Your task to perform on an android device: open chrome and create a bookmark for the current page Image 0: 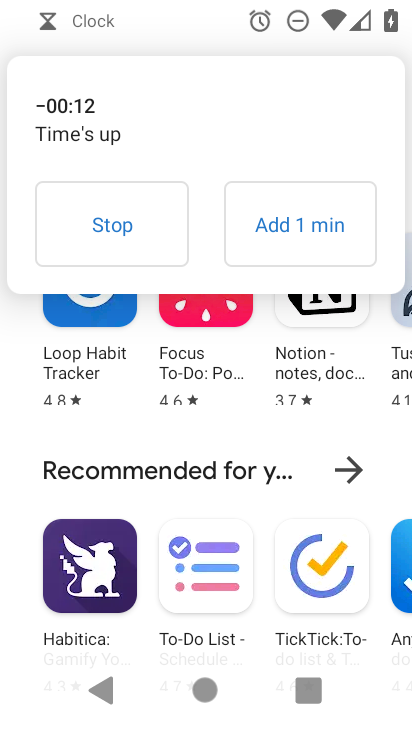
Step 0: press home button
Your task to perform on an android device: open chrome and create a bookmark for the current page Image 1: 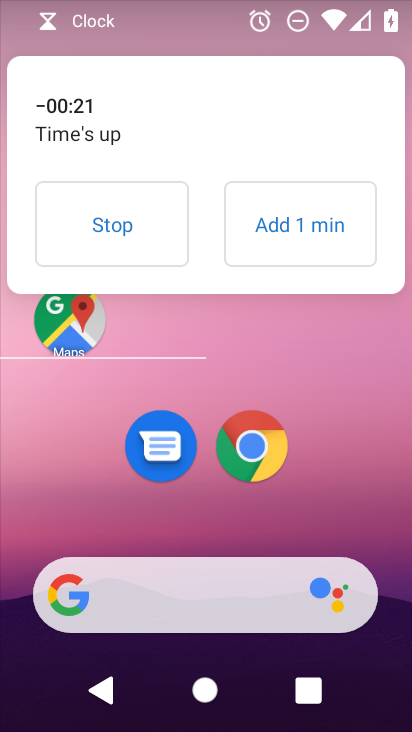
Step 1: click (78, 233)
Your task to perform on an android device: open chrome and create a bookmark for the current page Image 2: 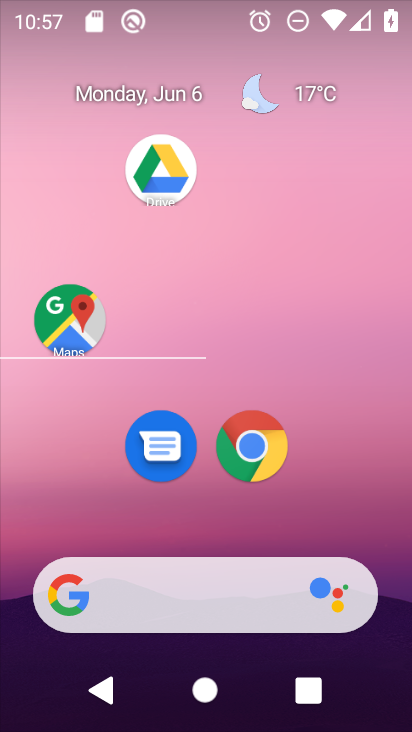
Step 2: click (251, 460)
Your task to perform on an android device: open chrome and create a bookmark for the current page Image 3: 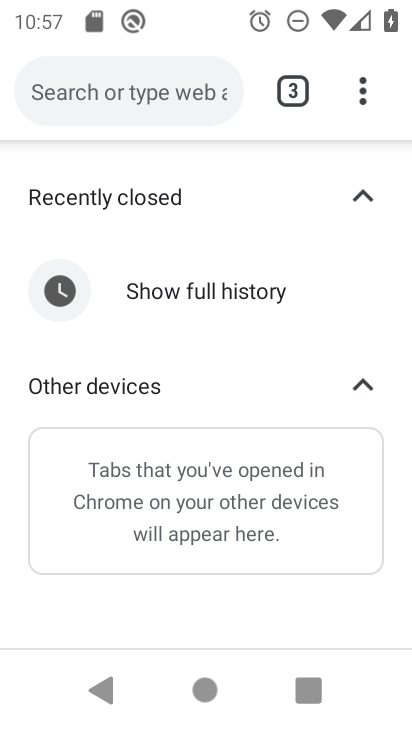
Step 3: click (376, 88)
Your task to perform on an android device: open chrome and create a bookmark for the current page Image 4: 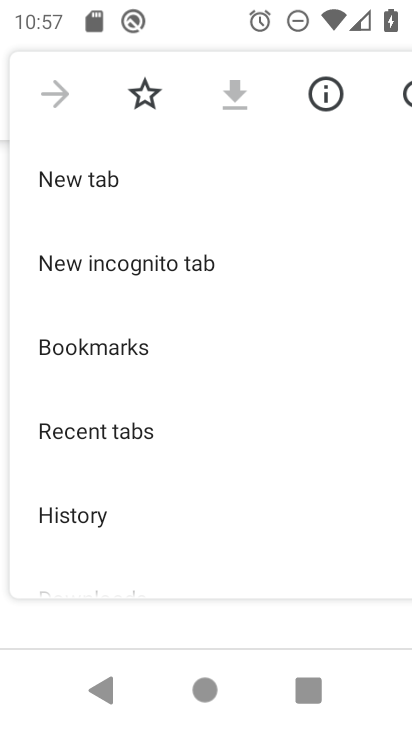
Step 4: click (145, 94)
Your task to perform on an android device: open chrome and create a bookmark for the current page Image 5: 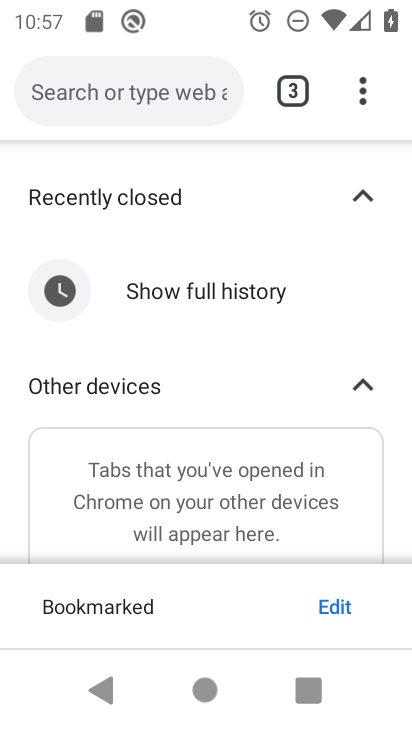
Step 5: task complete